Your task to perform on an android device: turn on the 24-hour format for clock Image 0: 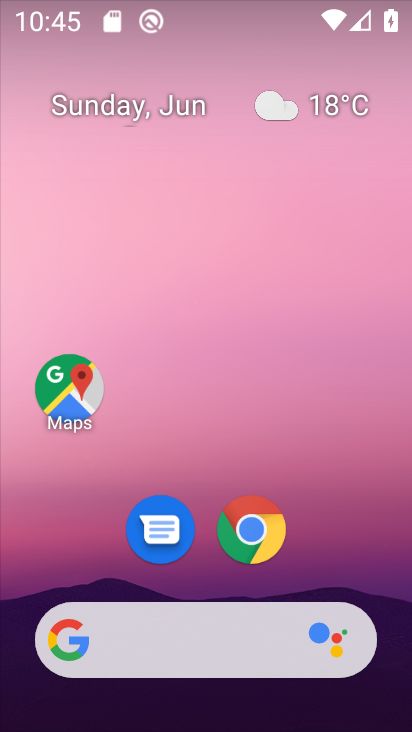
Step 0: drag from (206, 598) to (349, 158)
Your task to perform on an android device: turn on the 24-hour format for clock Image 1: 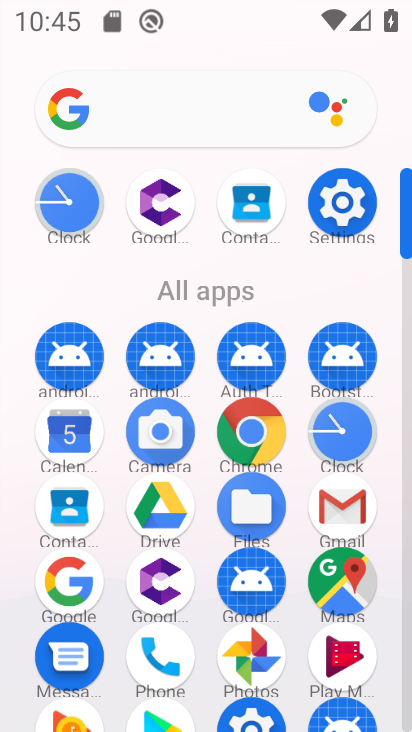
Step 1: click (332, 433)
Your task to perform on an android device: turn on the 24-hour format for clock Image 2: 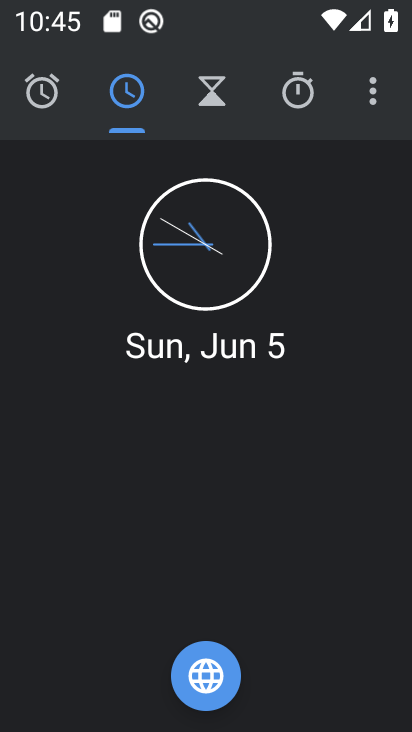
Step 2: click (383, 110)
Your task to perform on an android device: turn on the 24-hour format for clock Image 3: 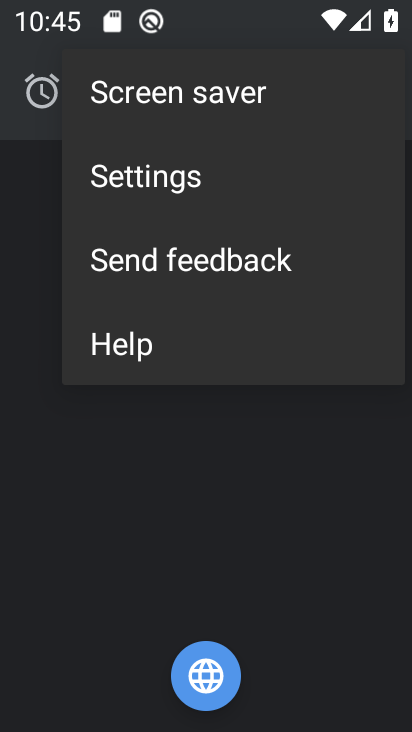
Step 3: click (298, 179)
Your task to perform on an android device: turn on the 24-hour format for clock Image 4: 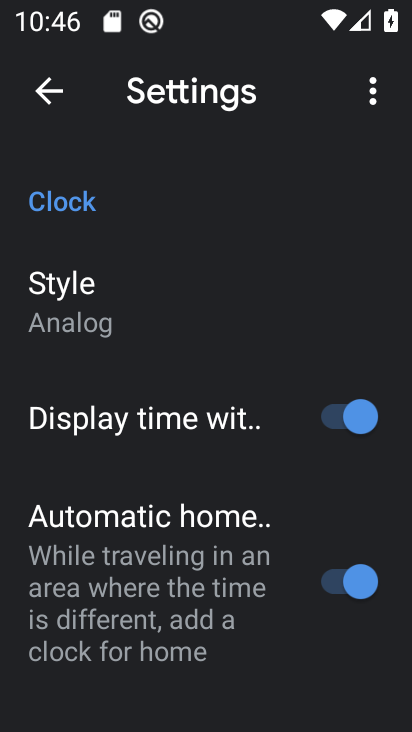
Step 4: drag from (279, 650) to (370, 222)
Your task to perform on an android device: turn on the 24-hour format for clock Image 5: 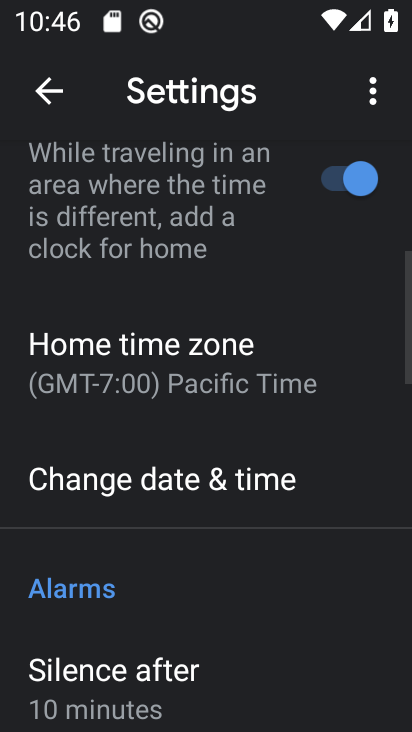
Step 5: click (266, 463)
Your task to perform on an android device: turn on the 24-hour format for clock Image 6: 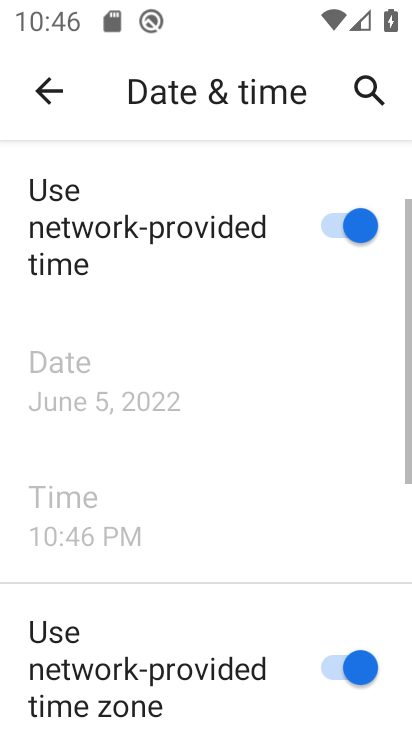
Step 6: drag from (230, 686) to (386, 165)
Your task to perform on an android device: turn on the 24-hour format for clock Image 7: 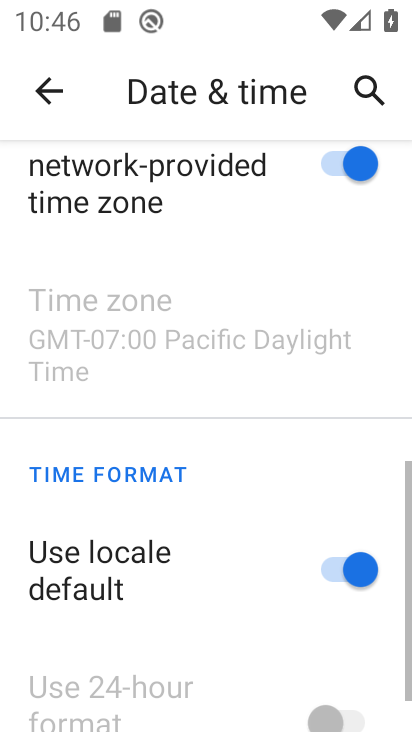
Step 7: drag from (217, 656) to (357, 193)
Your task to perform on an android device: turn on the 24-hour format for clock Image 8: 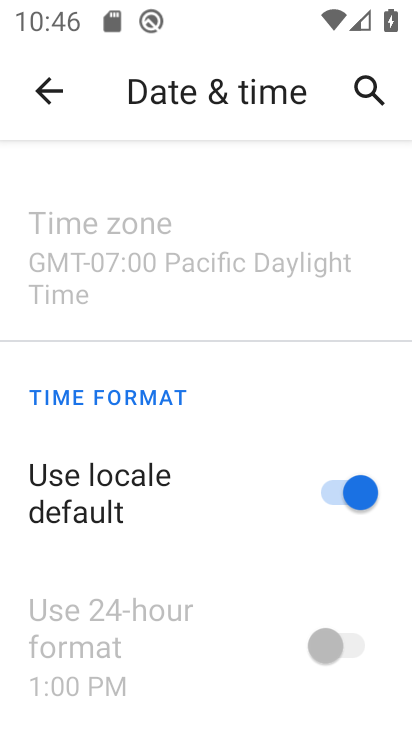
Step 8: drag from (142, 621) to (288, 292)
Your task to perform on an android device: turn on the 24-hour format for clock Image 9: 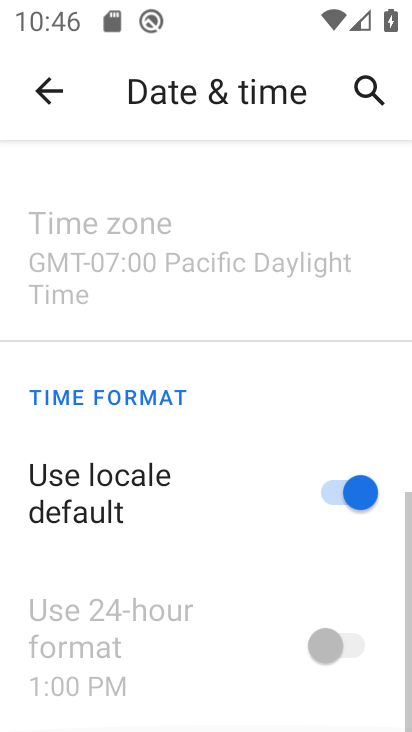
Step 9: click (342, 496)
Your task to perform on an android device: turn on the 24-hour format for clock Image 10: 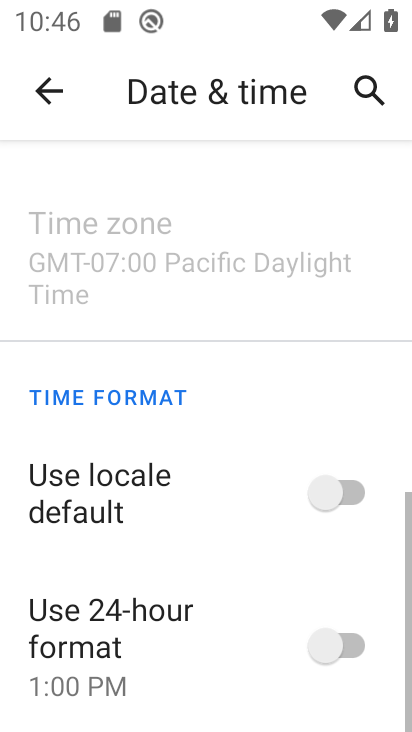
Step 10: click (360, 639)
Your task to perform on an android device: turn on the 24-hour format for clock Image 11: 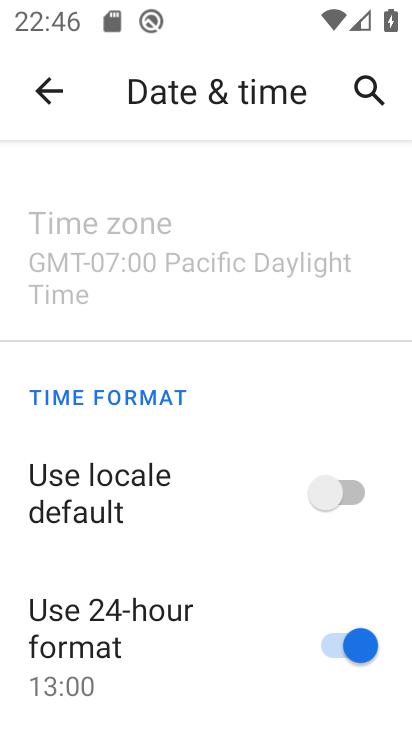
Step 11: task complete